Your task to perform on an android device: Do I have any events tomorrow? Image 0: 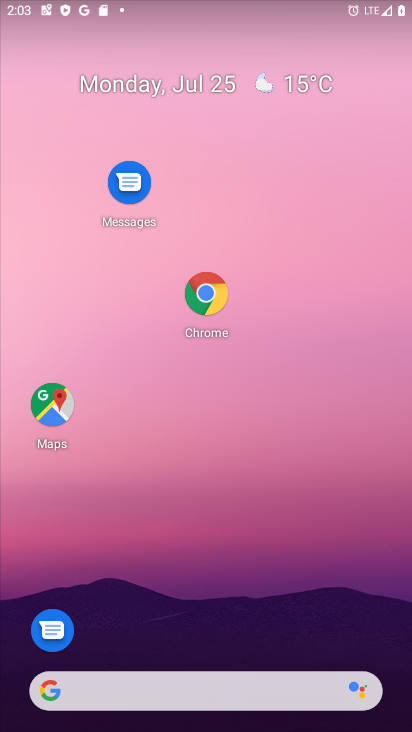
Step 0: press home button
Your task to perform on an android device: Do I have any events tomorrow? Image 1: 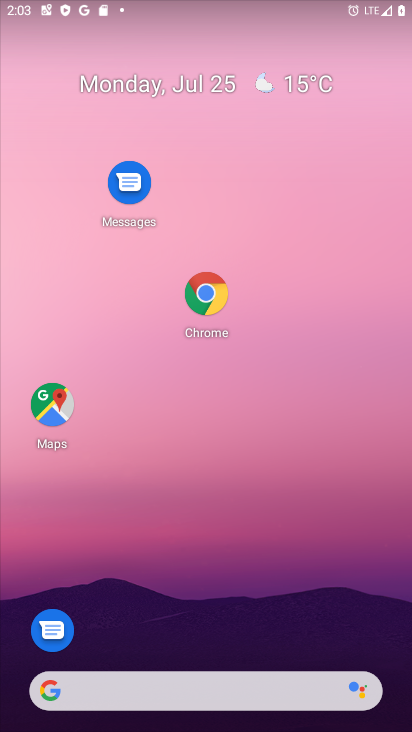
Step 1: drag from (284, 599) to (274, 7)
Your task to perform on an android device: Do I have any events tomorrow? Image 2: 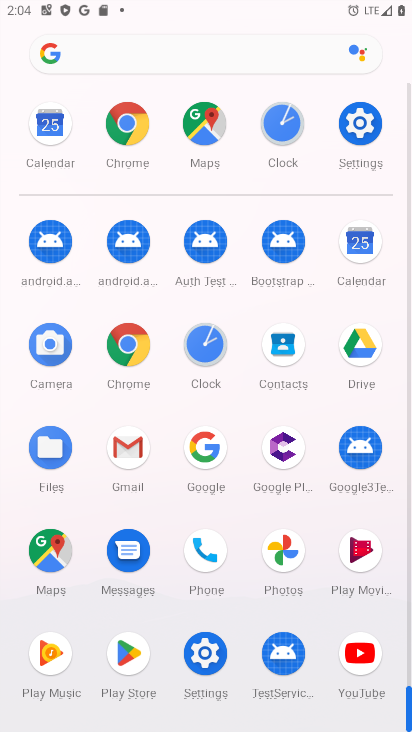
Step 2: click (380, 229)
Your task to perform on an android device: Do I have any events tomorrow? Image 3: 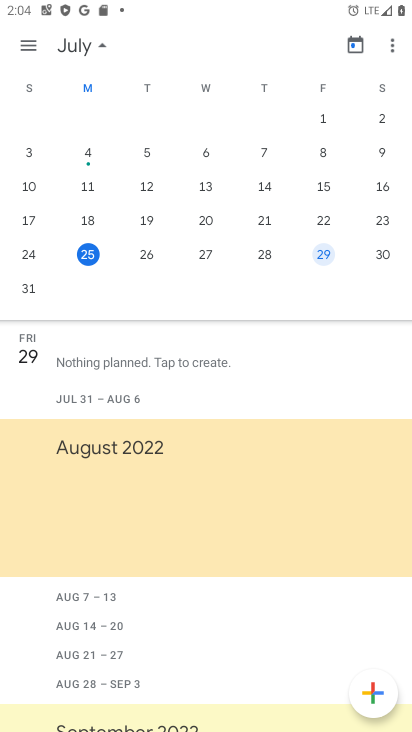
Step 3: click (131, 259)
Your task to perform on an android device: Do I have any events tomorrow? Image 4: 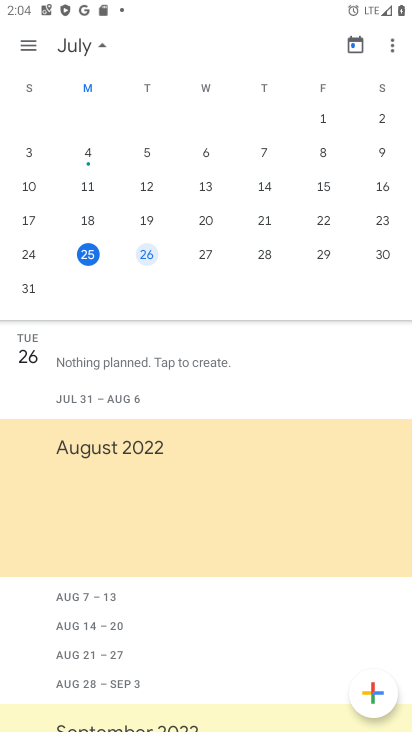
Step 4: task complete